Your task to perform on an android device: Open calendar and show me the third week of next month Image 0: 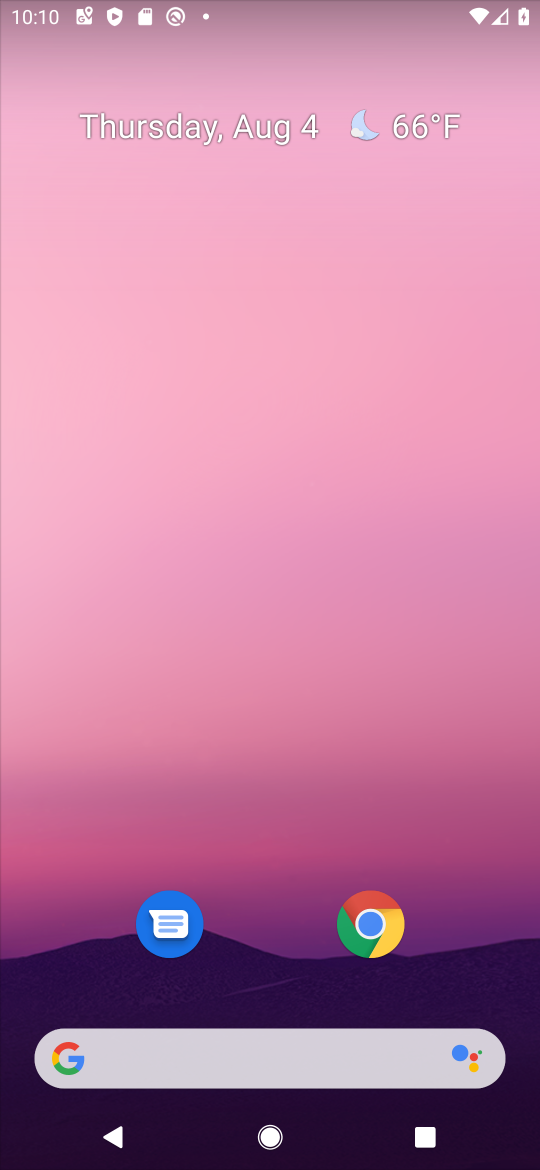
Step 0: drag from (325, 829) to (432, 57)
Your task to perform on an android device: Open calendar and show me the third week of next month Image 1: 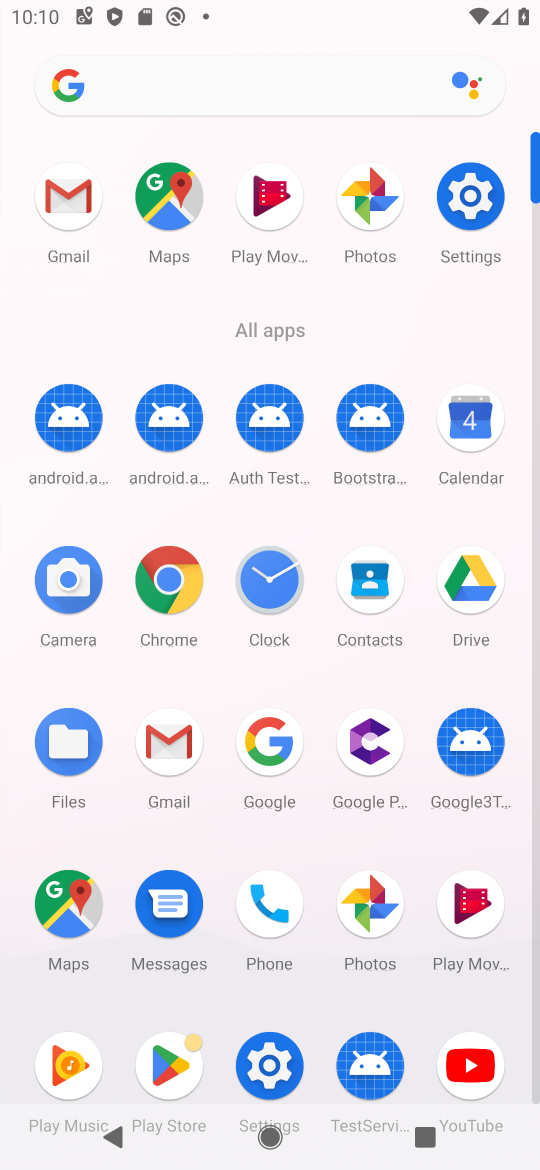
Step 1: click (481, 433)
Your task to perform on an android device: Open calendar and show me the third week of next month Image 2: 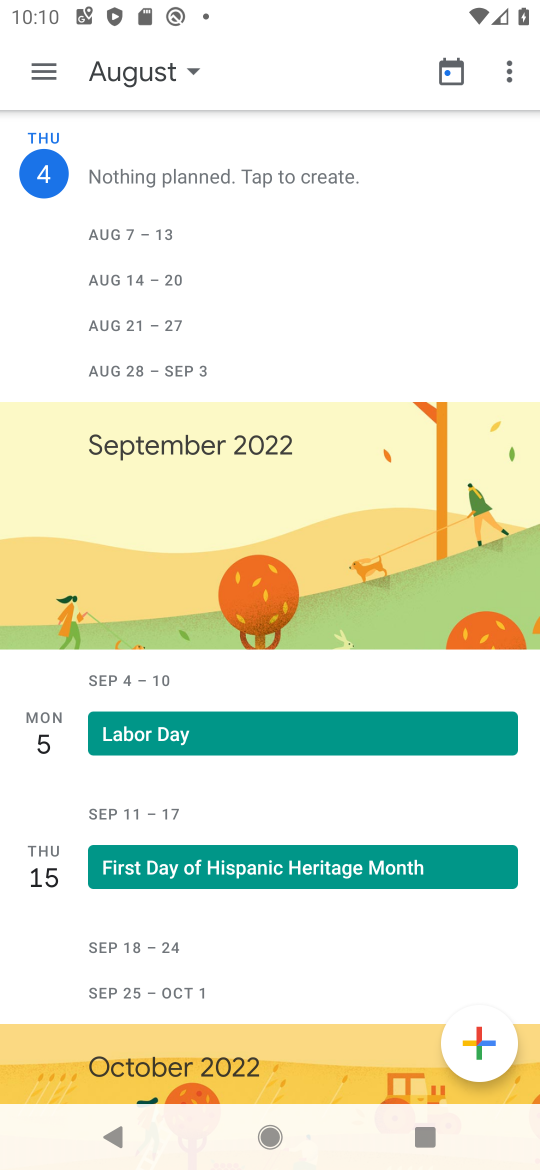
Step 2: task complete